Your task to perform on an android device: Go to sound settings Image 0: 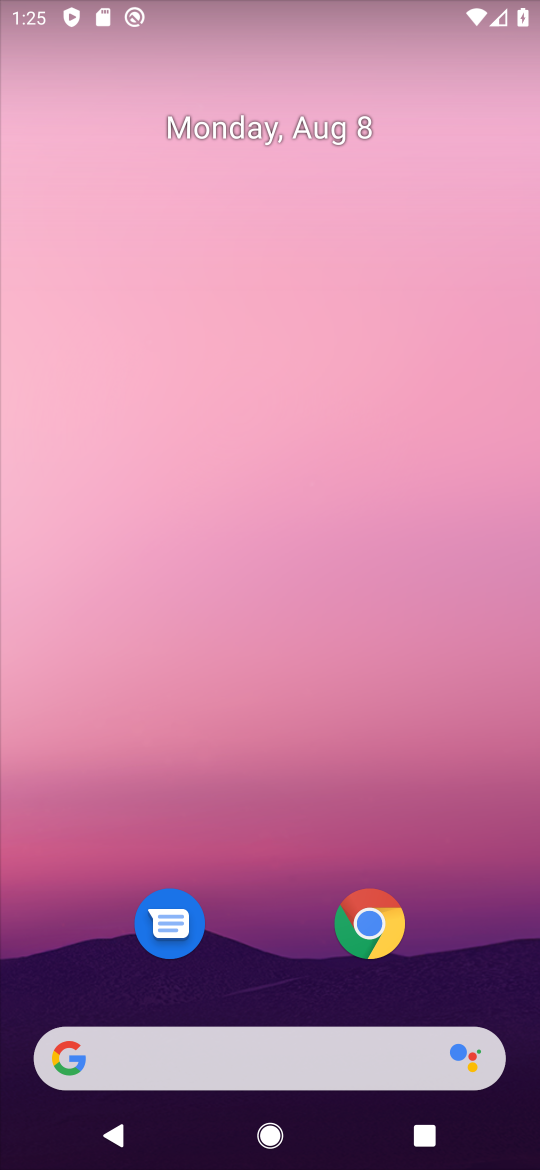
Step 0: task complete